Your task to perform on an android device: turn notification dots off Image 0: 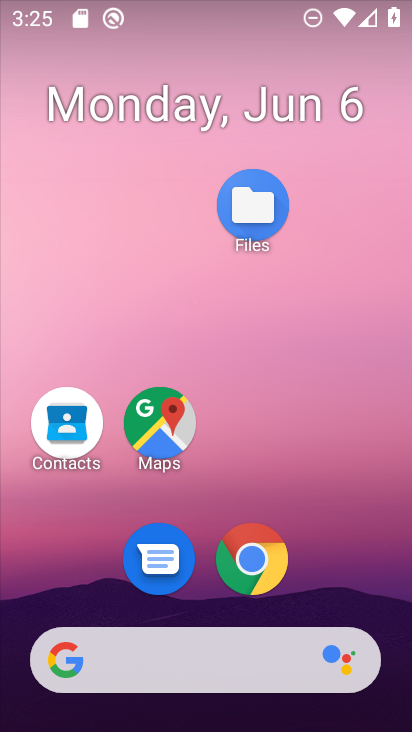
Step 0: drag from (173, 669) to (228, 99)
Your task to perform on an android device: turn notification dots off Image 1: 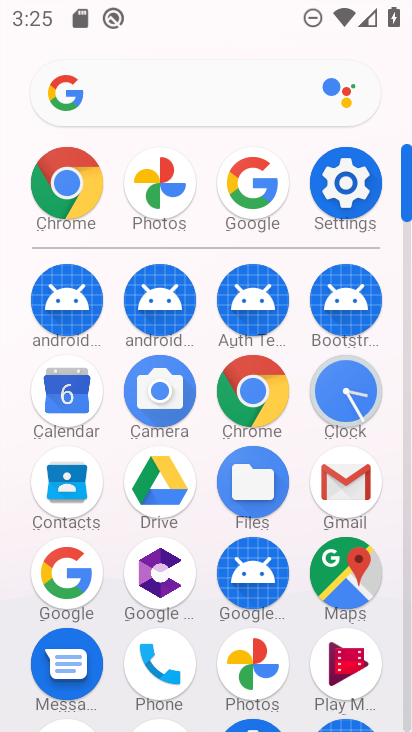
Step 1: click (337, 183)
Your task to perform on an android device: turn notification dots off Image 2: 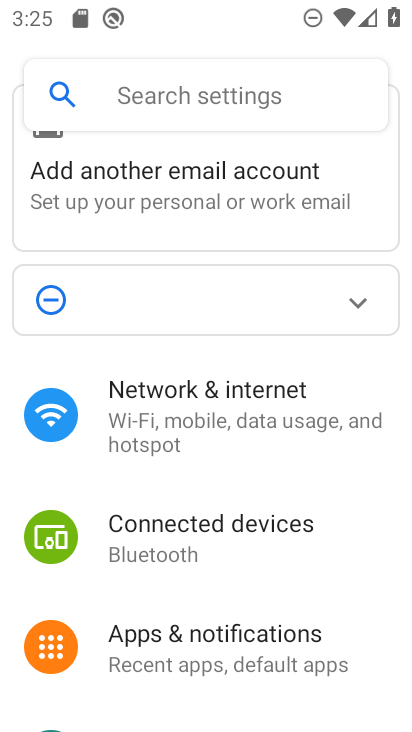
Step 2: click (214, 653)
Your task to perform on an android device: turn notification dots off Image 3: 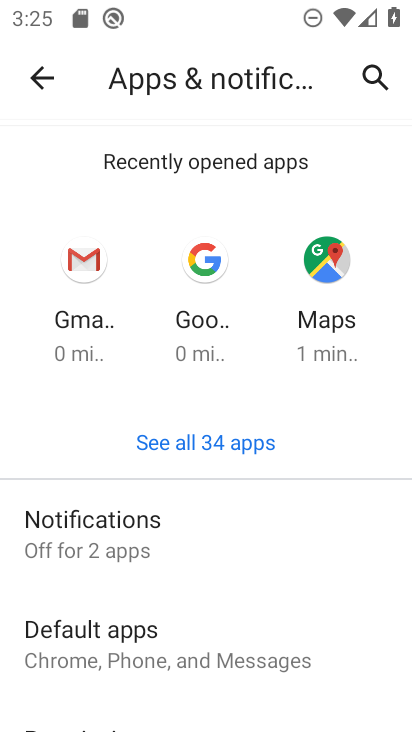
Step 3: click (164, 538)
Your task to perform on an android device: turn notification dots off Image 4: 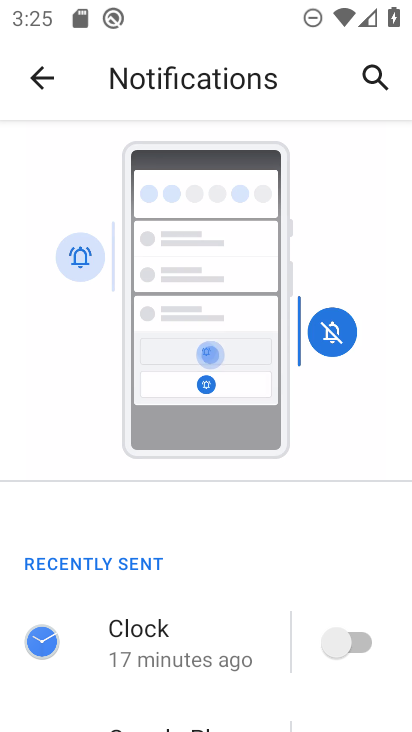
Step 4: drag from (181, 587) to (175, 216)
Your task to perform on an android device: turn notification dots off Image 5: 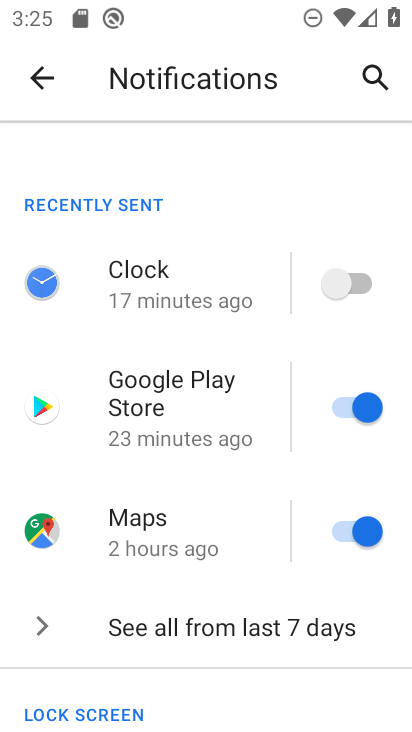
Step 5: drag from (202, 623) to (173, 322)
Your task to perform on an android device: turn notification dots off Image 6: 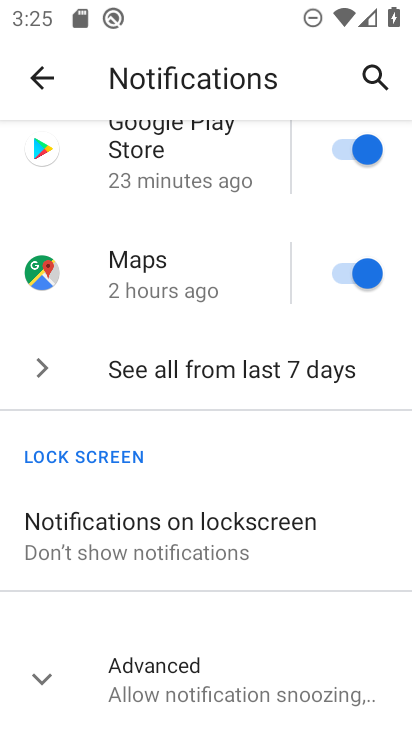
Step 6: drag from (164, 543) to (155, 239)
Your task to perform on an android device: turn notification dots off Image 7: 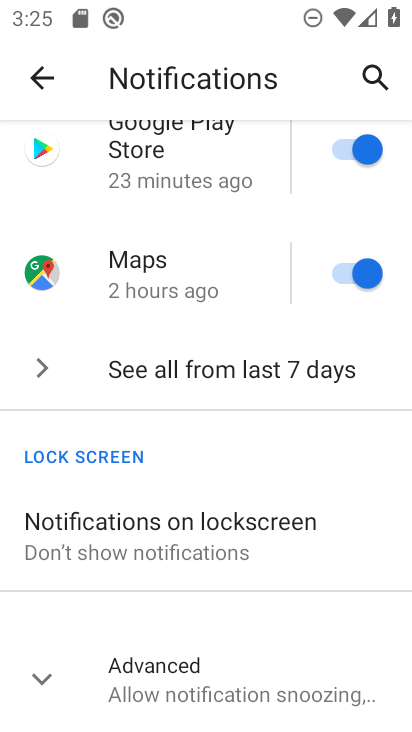
Step 7: click (144, 650)
Your task to perform on an android device: turn notification dots off Image 8: 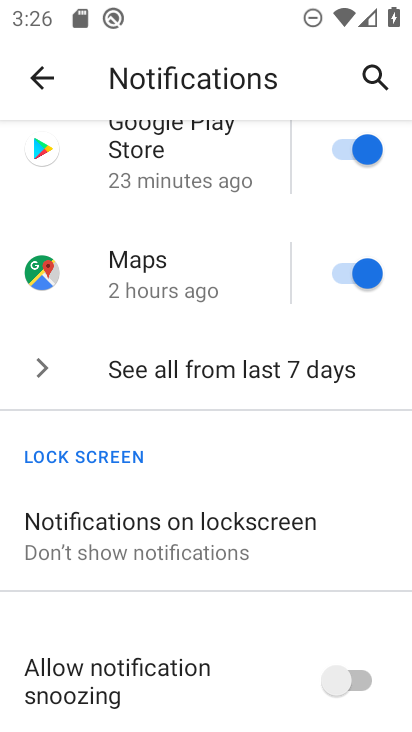
Step 8: task complete